Your task to perform on an android device: toggle wifi Image 0: 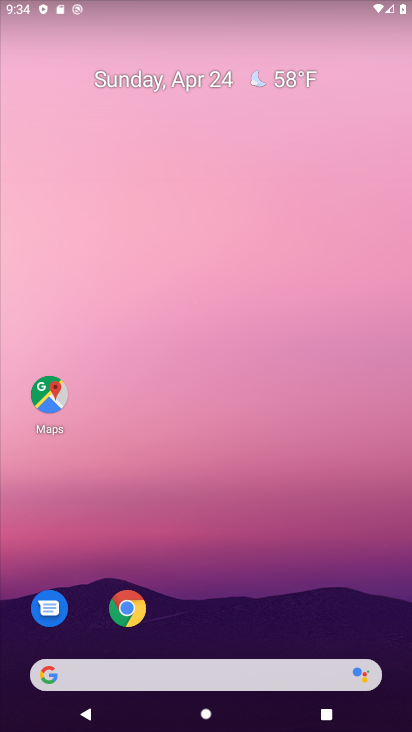
Step 0: drag from (339, 488) to (329, 55)
Your task to perform on an android device: toggle wifi Image 1: 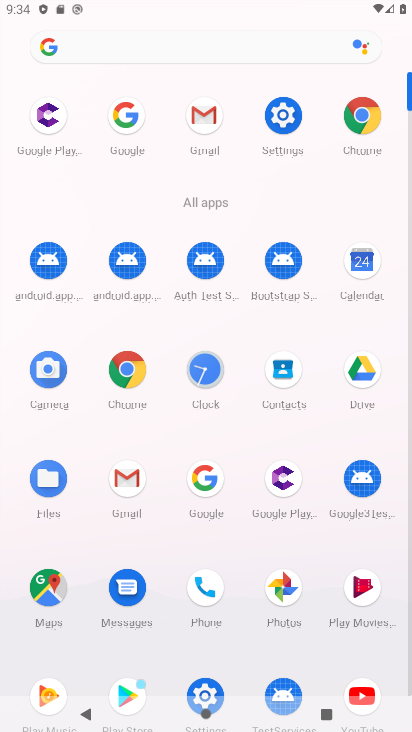
Step 1: click (269, 121)
Your task to perform on an android device: toggle wifi Image 2: 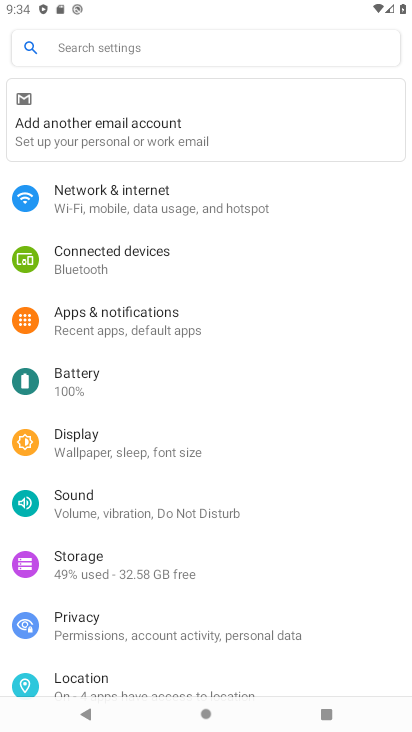
Step 2: click (117, 195)
Your task to perform on an android device: toggle wifi Image 3: 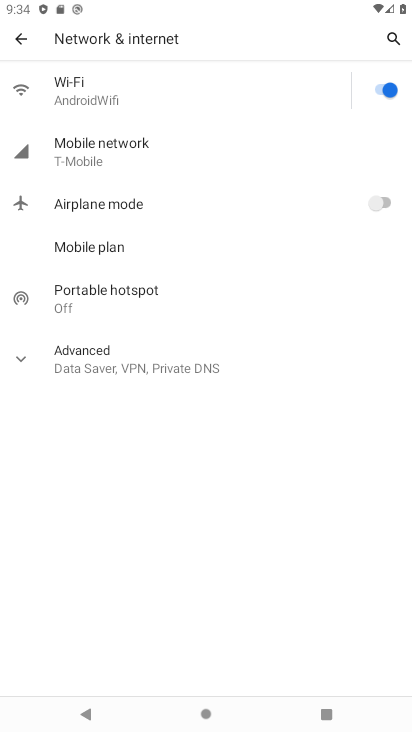
Step 3: click (387, 95)
Your task to perform on an android device: toggle wifi Image 4: 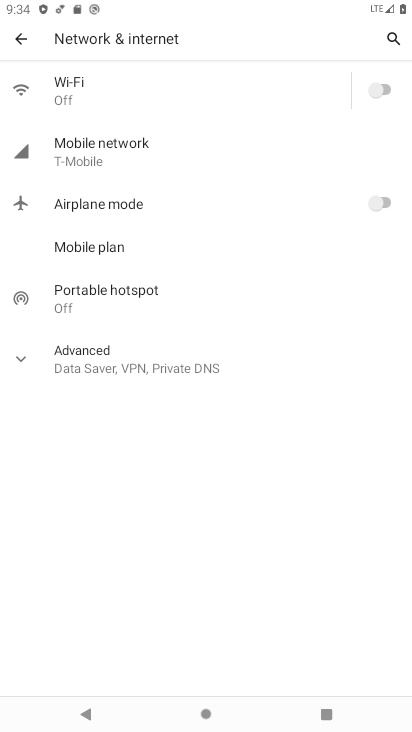
Step 4: task complete